Your task to perform on an android device: Go to Android settings Image 0: 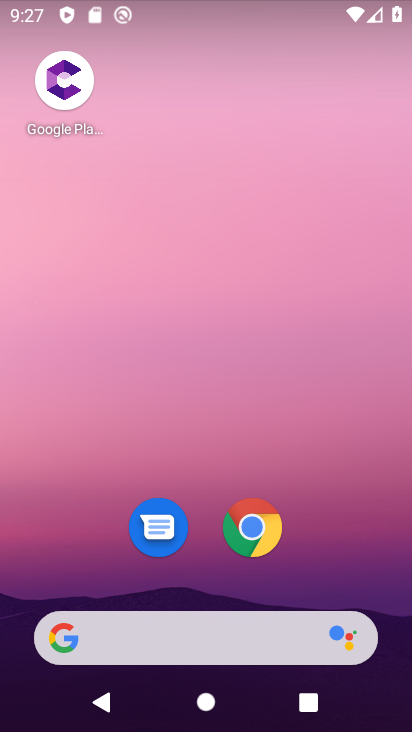
Step 0: drag from (337, 523) to (355, 131)
Your task to perform on an android device: Go to Android settings Image 1: 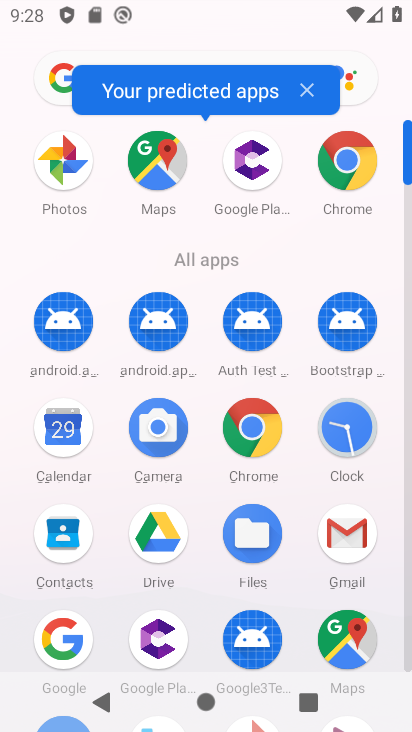
Step 1: drag from (200, 486) to (230, 133)
Your task to perform on an android device: Go to Android settings Image 2: 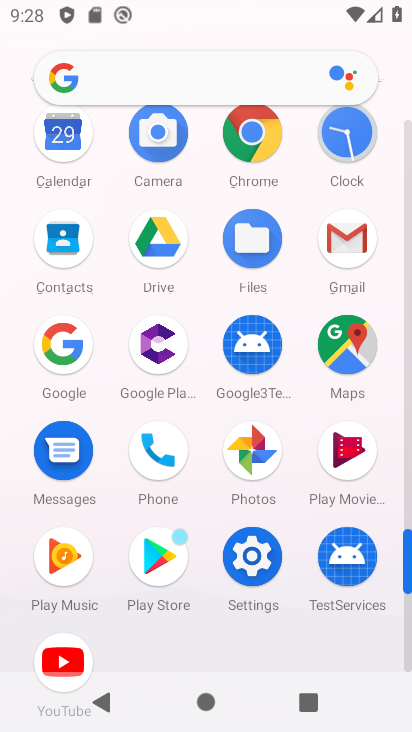
Step 2: click (257, 565)
Your task to perform on an android device: Go to Android settings Image 3: 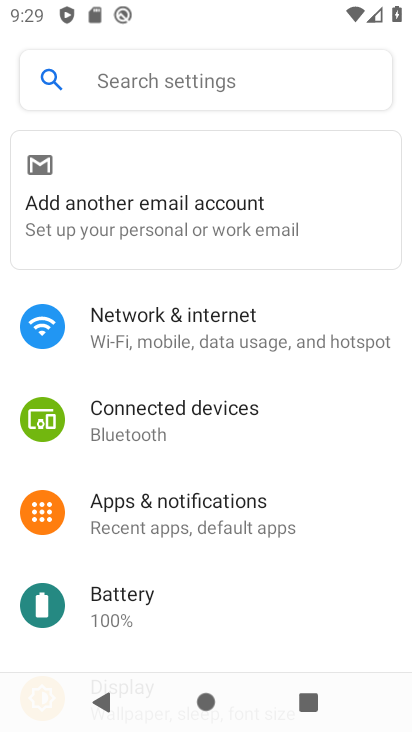
Step 3: task complete